Your task to perform on an android device: Check the news Image 0: 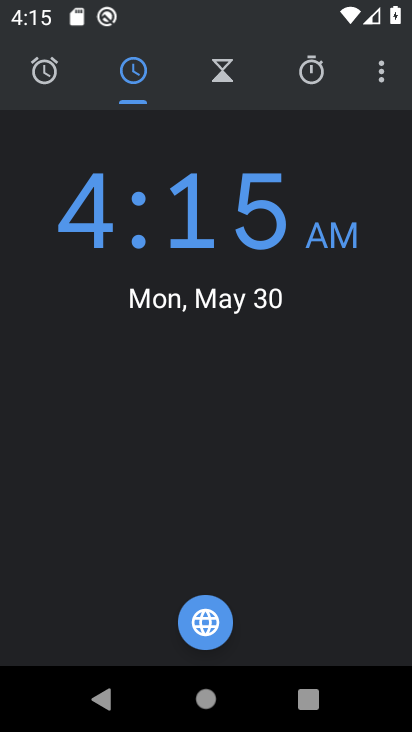
Step 0: press home button
Your task to perform on an android device: Check the news Image 1: 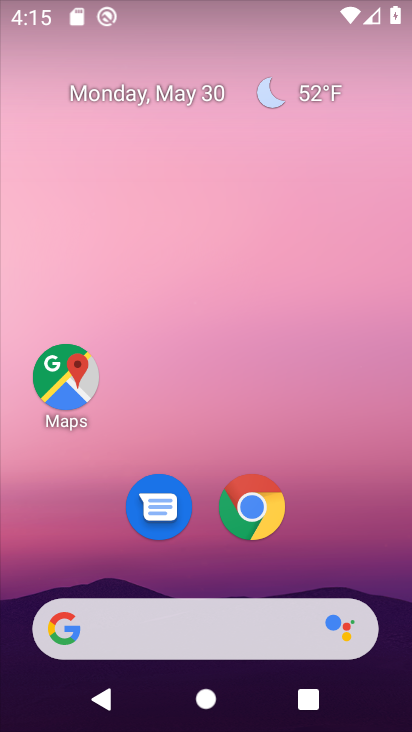
Step 1: click (271, 504)
Your task to perform on an android device: Check the news Image 2: 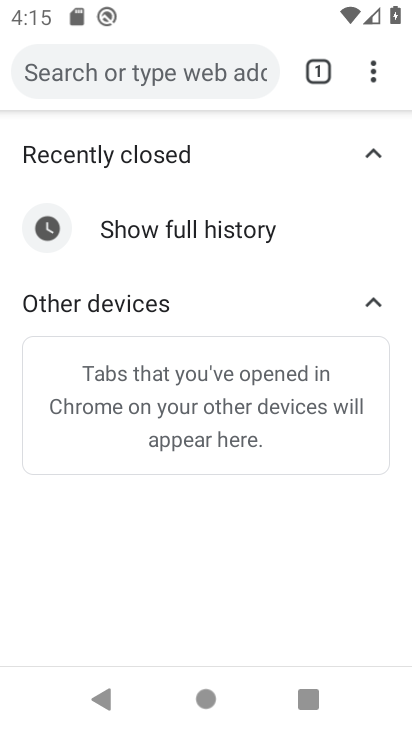
Step 2: click (132, 68)
Your task to perform on an android device: Check the news Image 3: 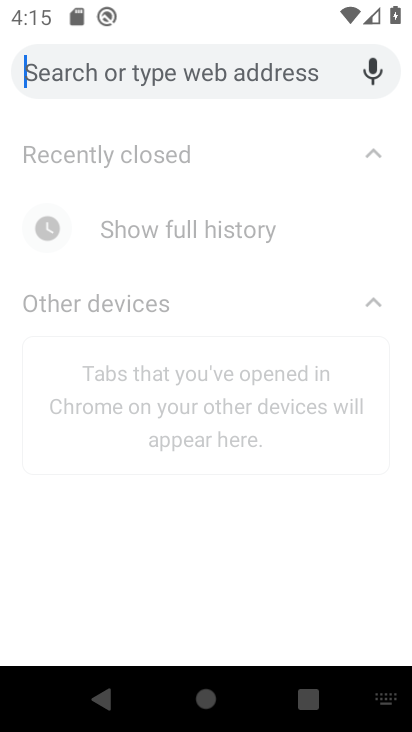
Step 3: type " news"
Your task to perform on an android device: Check the news Image 4: 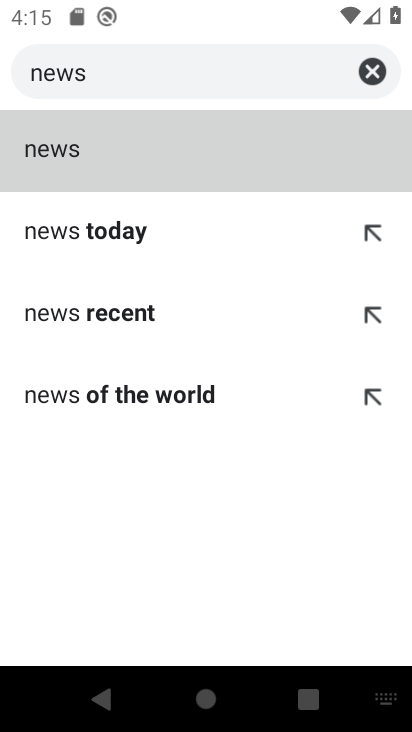
Step 4: click (107, 119)
Your task to perform on an android device: Check the news Image 5: 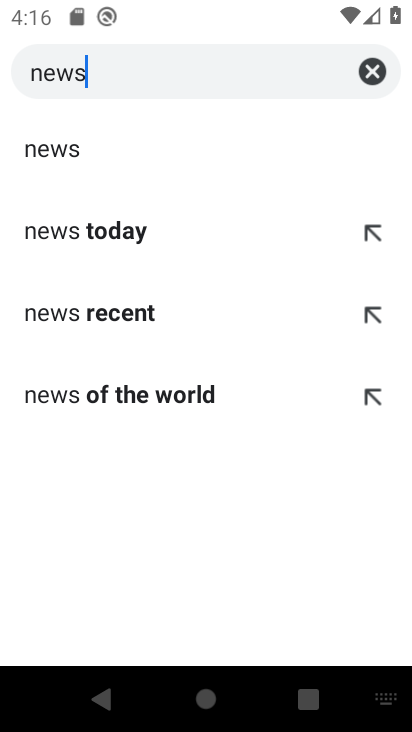
Step 5: click (87, 172)
Your task to perform on an android device: Check the news Image 6: 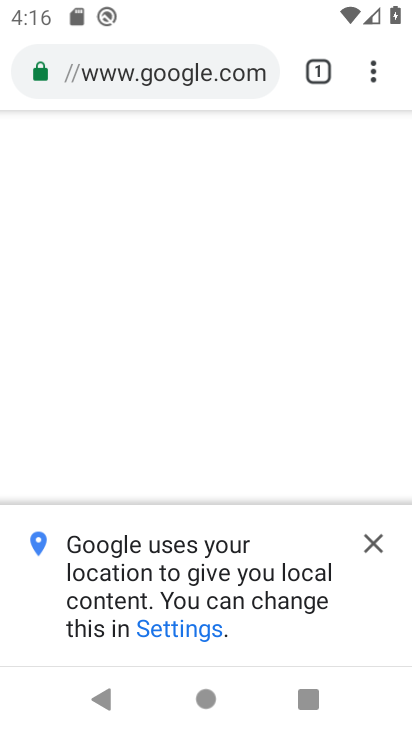
Step 6: click (370, 550)
Your task to perform on an android device: Check the news Image 7: 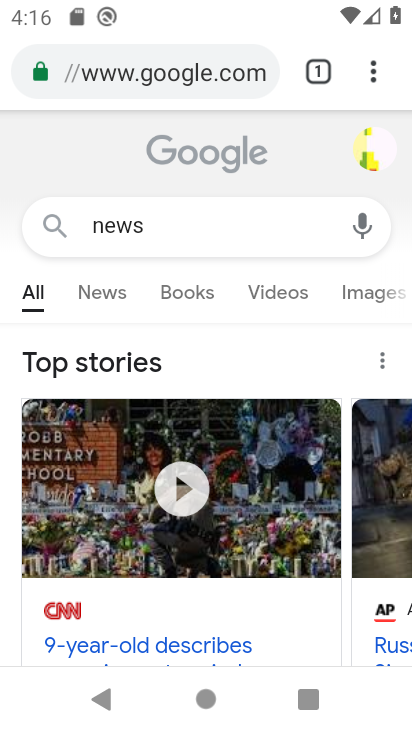
Step 7: task complete